Your task to perform on an android device: allow cookies in the chrome app Image 0: 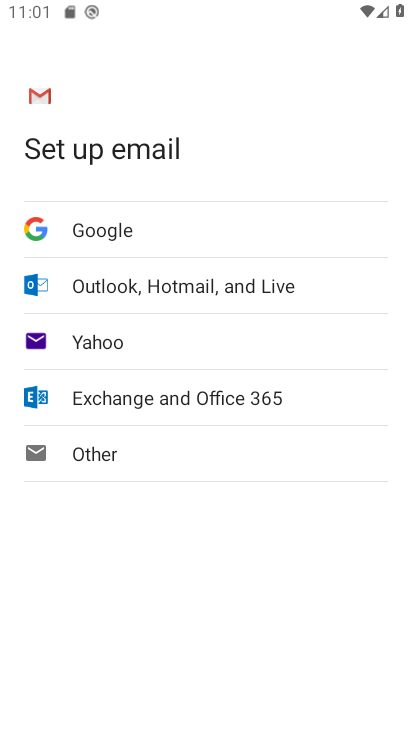
Step 0: press back button
Your task to perform on an android device: allow cookies in the chrome app Image 1: 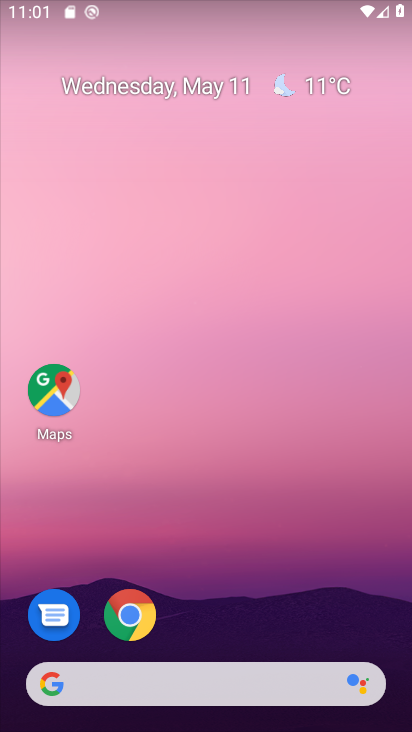
Step 1: click (140, 621)
Your task to perform on an android device: allow cookies in the chrome app Image 2: 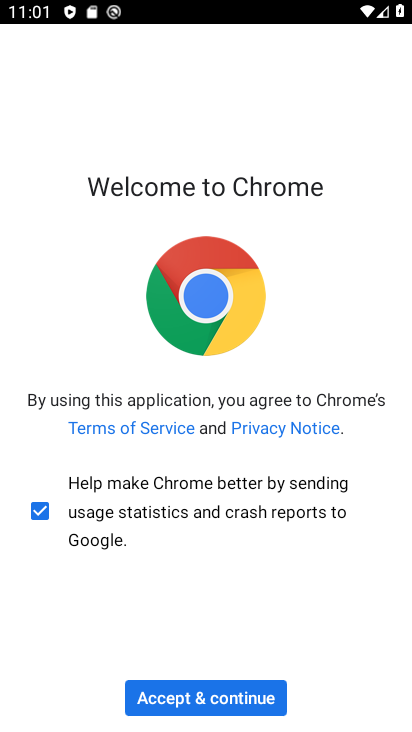
Step 2: click (256, 707)
Your task to perform on an android device: allow cookies in the chrome app Image 3: 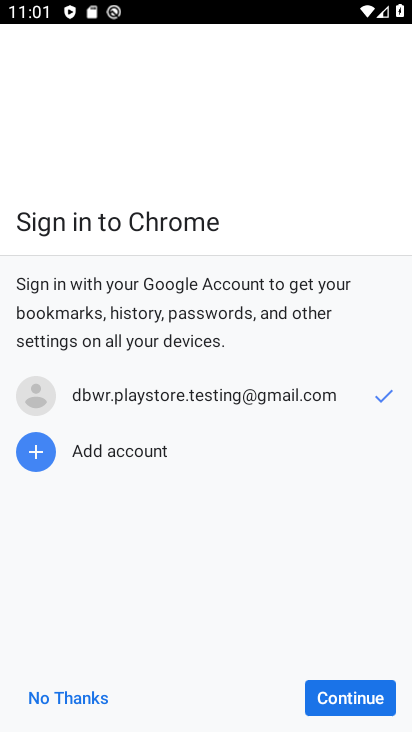
Step 3: click (371, 702)
Your task to perform on an android device: allow cookies in the chrome app Image 4: 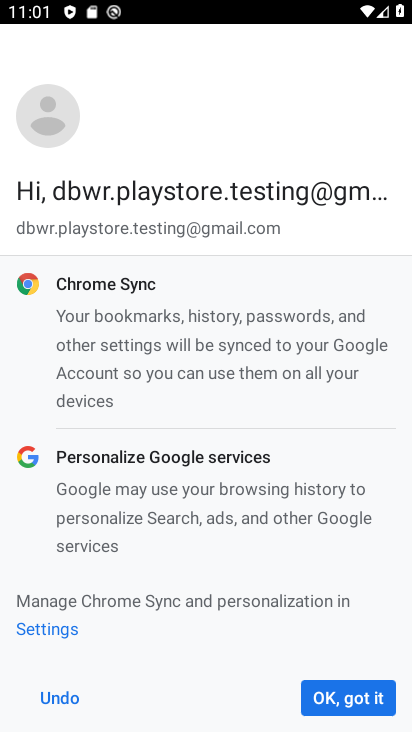
Step 4: click (371, 702)
Your task to perform on an android device: allow cookies in the chrome app Image 5: 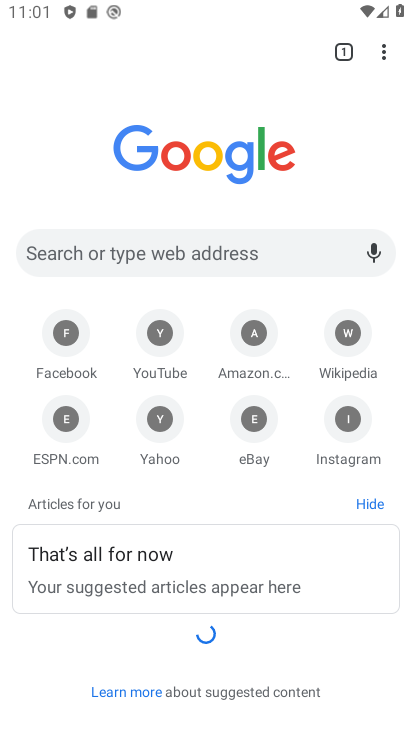
Step 5: drag from (384, 55) to (291, 440)
Your task to perform on an android device: allow cookies in the chrome app Image 6: 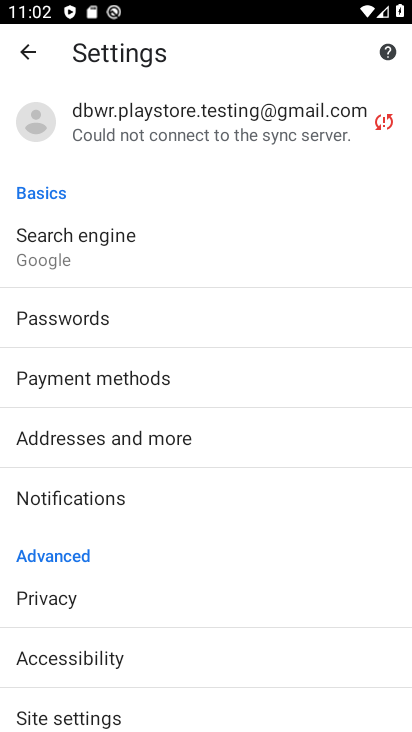
Step 6: drag from (262, 638) to (361, 240)
Your task to perform on an android device: allow cookies in the chrome app Image 7: 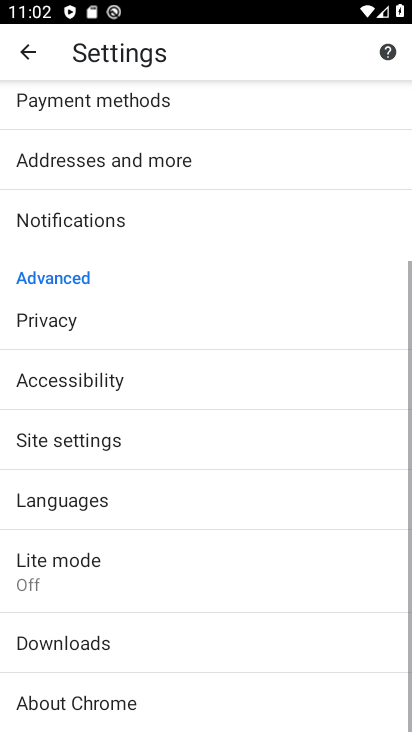
Step 7: click (209, 440)
Your task to perform on an android device: allow cookies in the chrome app Image 8: 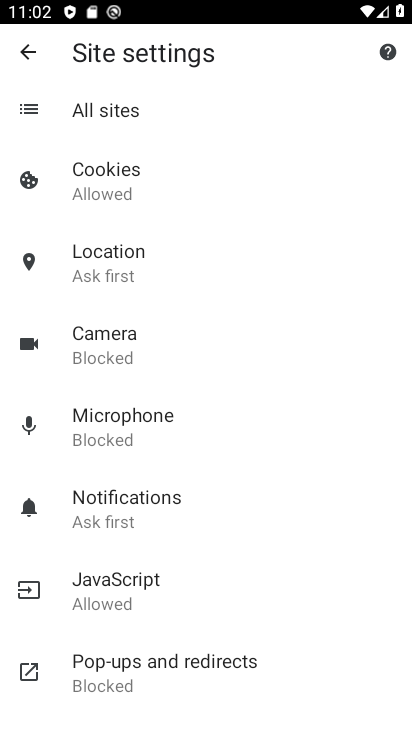
Step 8: click (228, 189)
Your task to perform on an android device: allow cookies in the chrome app Image 9: 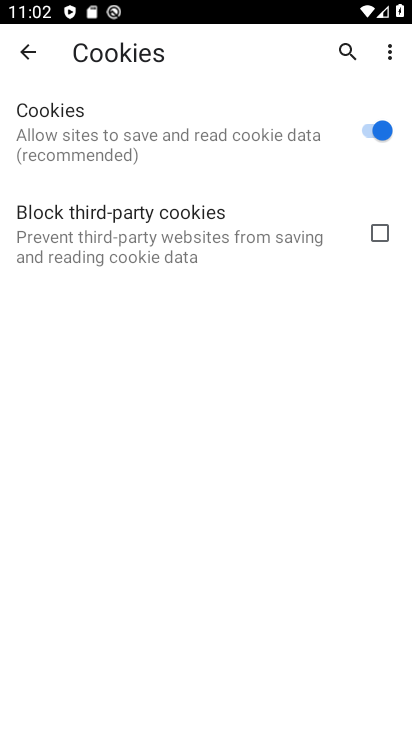
Step 9: task complete